Your task to perform on an android device: change the clock display to show seconds Image 0: 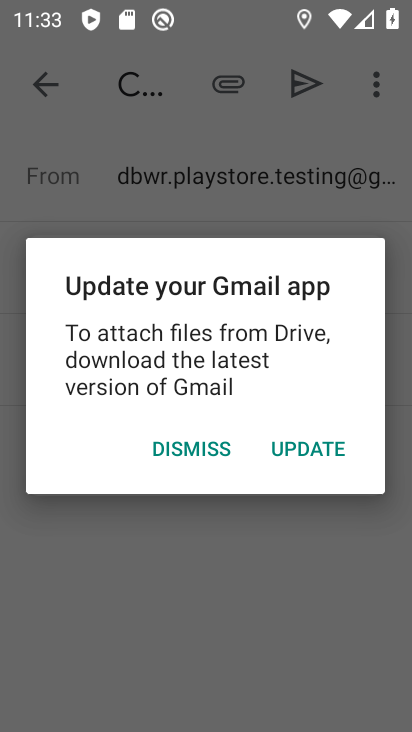
Step 0: press home button
Your task to perform on an android device: change the clock display to show seconds Image 1: 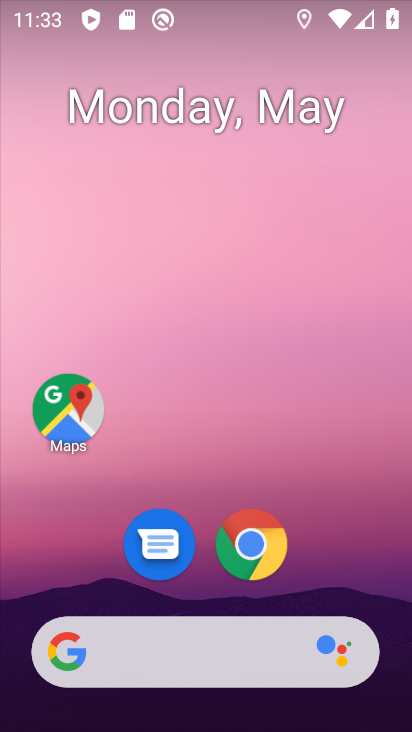
Step 1: drag from (332, 518) to (218, 99)
Your task to perform on an android device: change the clock display to show seconds Image 2: 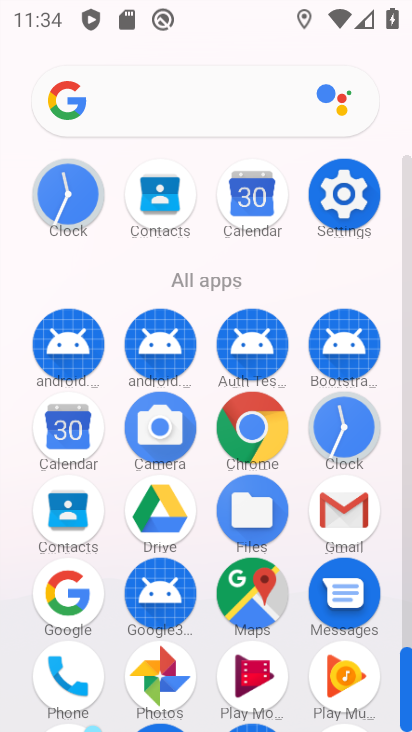
Step 2: click (340, 415)
Your task to perform on an android device: change the clock display to show seconds Image 3: 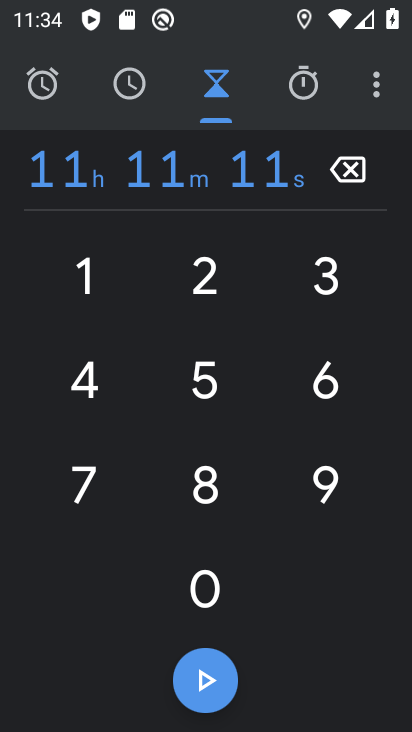
Step 3: click (375, 83)
Your task to perform on an android device: change the clock display to show seconds Image 4: 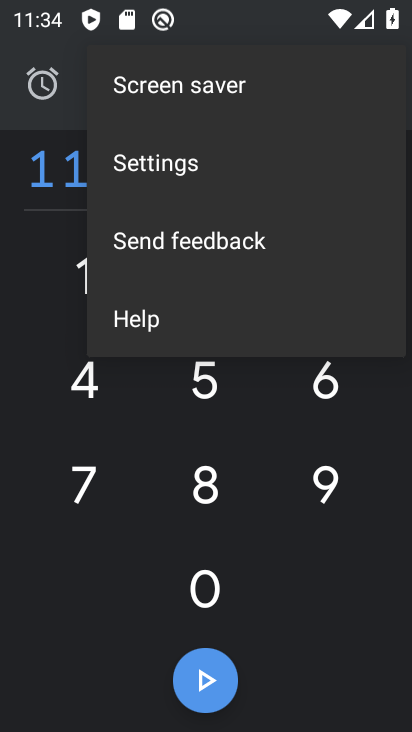
Step 4: click (145, 179)
Your task to perform on an android device: change the clock display to show seconds Image 5: 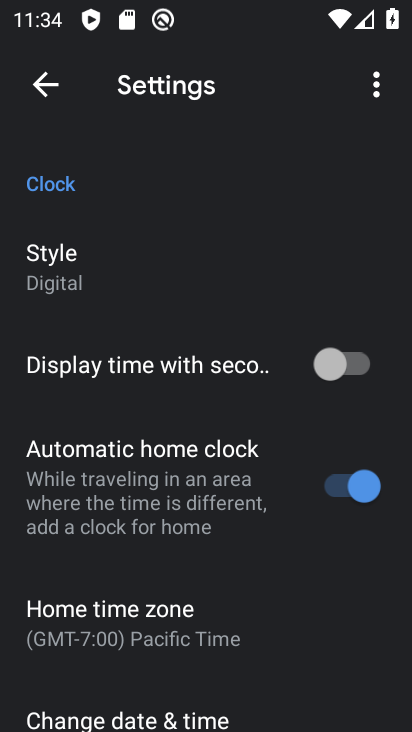
Step 5: click (325, 363)
Your task to perform on an android device: change the clock display to show seconds Image 6: 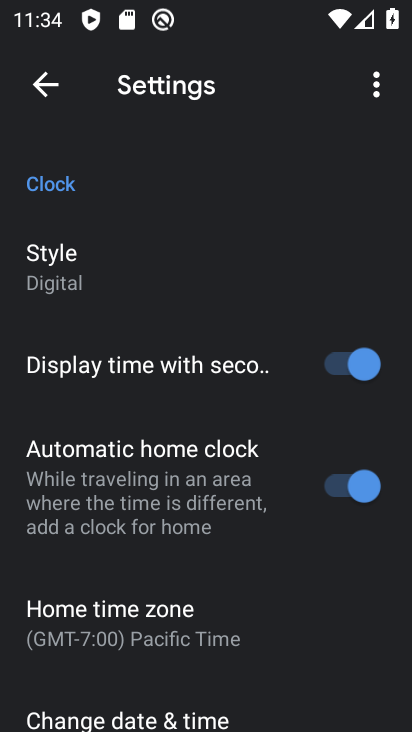
Step 6: task complete